Your task to perform on an android device: toggle airplane mode Image 0: 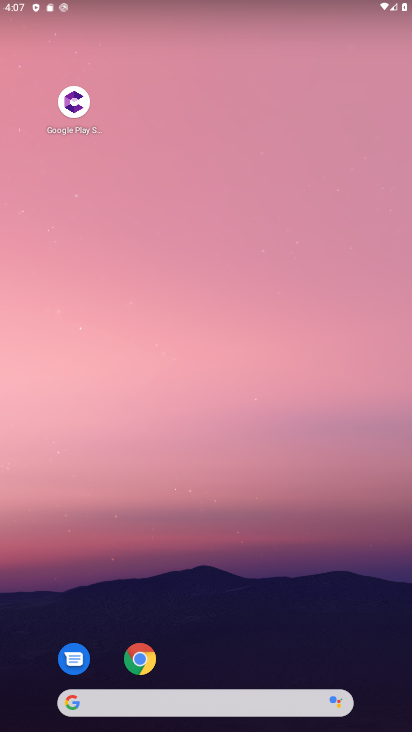
Step 0: drag from (353, 639) to (381, 159)
Your task to perform on an android device: toggle airplane mode Image 1: 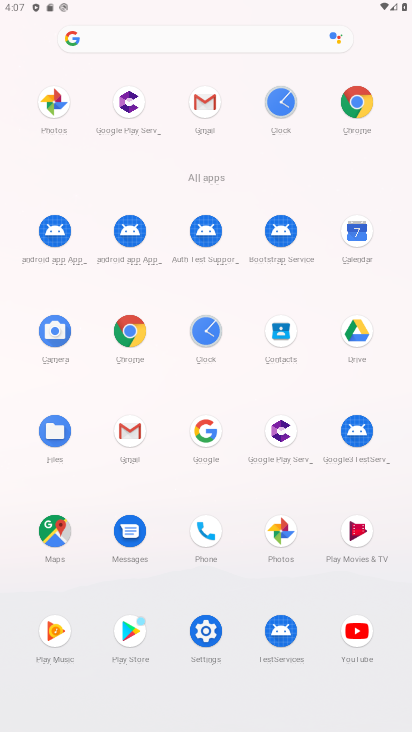
Step 1: click (210, 628)
Your task to perform on an android device: toggle airplane mode Image 2: 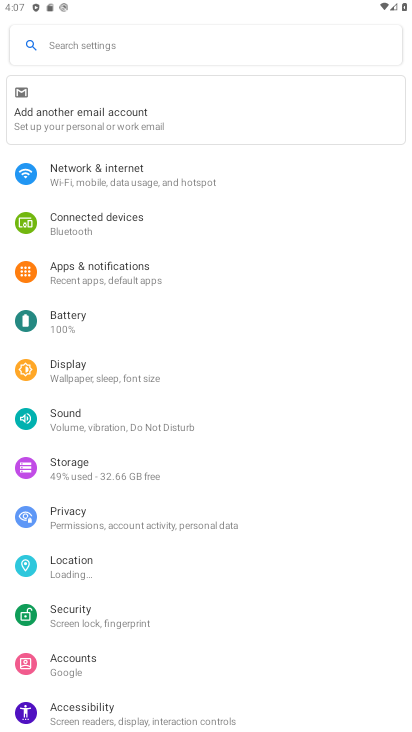
Step 2: drag from (347, 261) to (330, 399)
Your task to perform on an android device: toggle airplane mode Image 3: 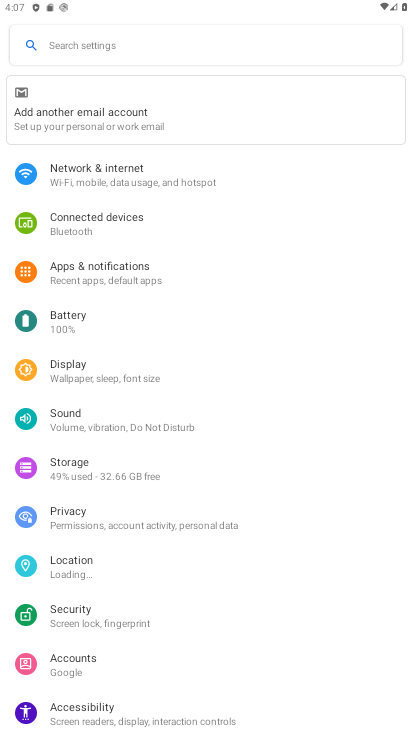
Step 3: click (240, 186)
Your task to perform on an android device: toggle airplane mode Image 4: 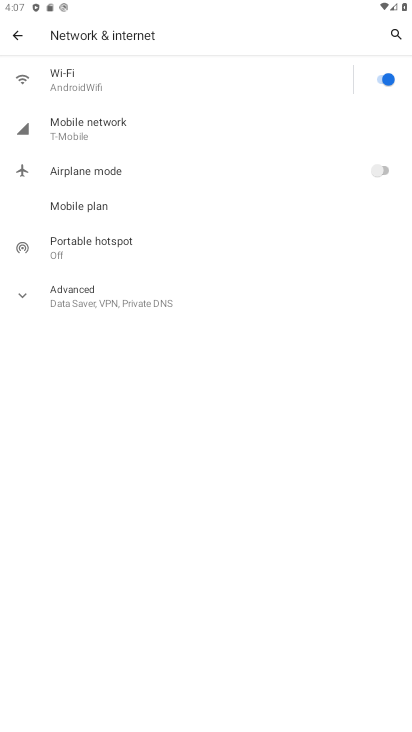
Step 4: click (380, 166)
Your task to perform on an android device: toggle airplane mode Image 5: 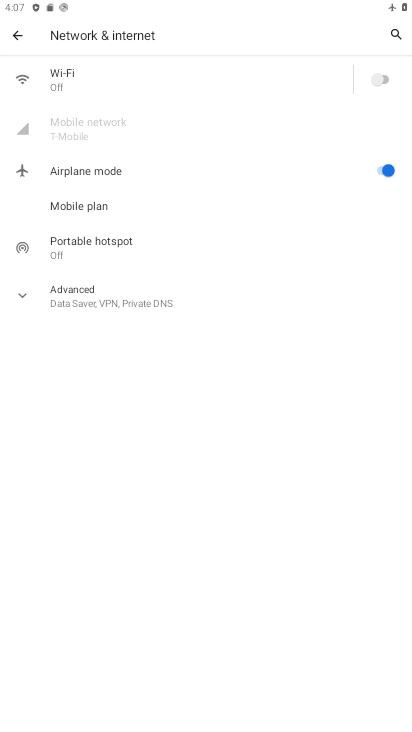
Step 5: task complete